Your task to perform on an android device: turn on javascript in the chrome app Image 0: 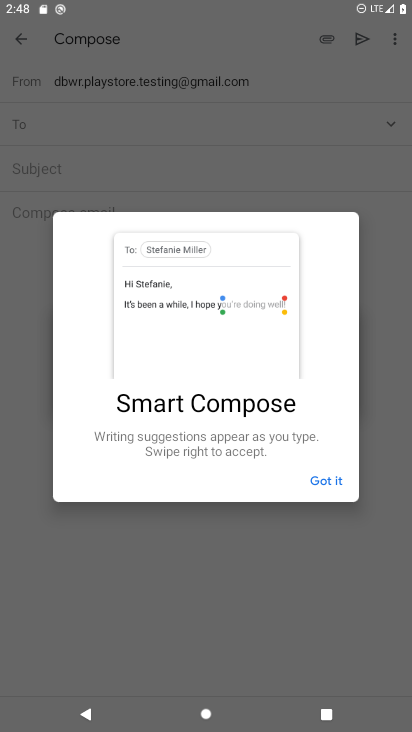
Step 0: press home button
Your task to perform on an android device: turn on javascript in the chrome app Image 1: 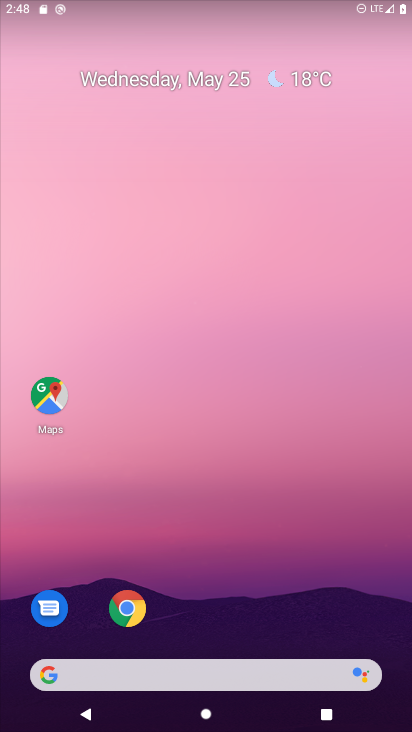
Step 1: click (124, 609)
Your task to perform on an android device: turn on javascript in the chrome app Image 2: 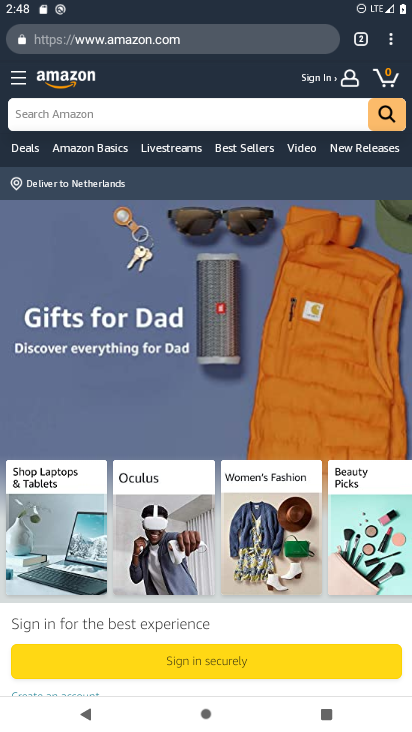
Step 2: click (390, 44)
Your task to perform on an android device: turn on javascript in the chrome app Image 3: 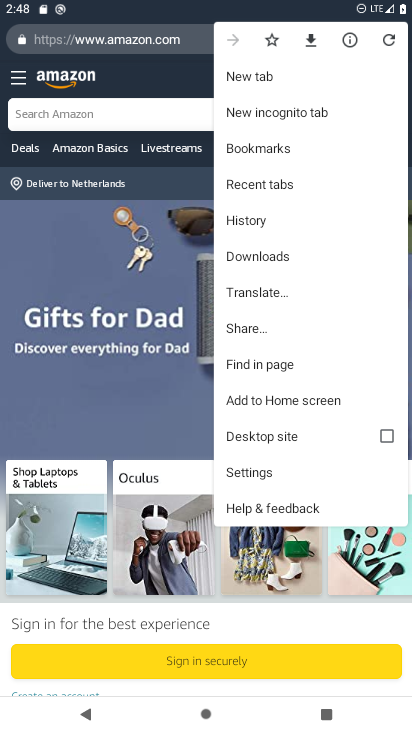
Step 3: click (263, 470)
Your task to perform on an android device: turn on javascript in the chrome app Image 4: 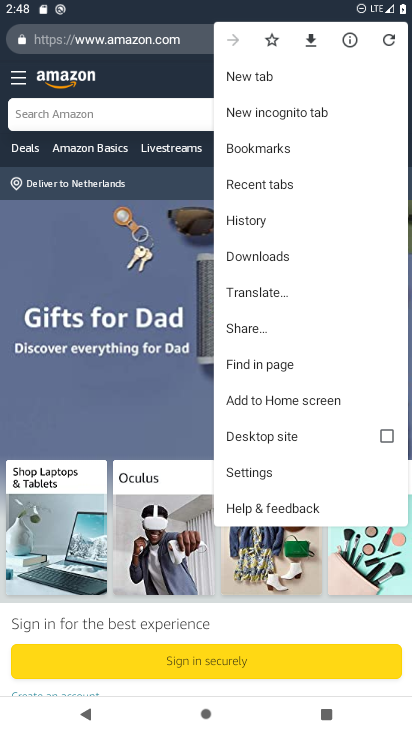
Step 4: click (263, 470)
Your task to perform on an android device: turn on javascript in the chrome app Image 5: 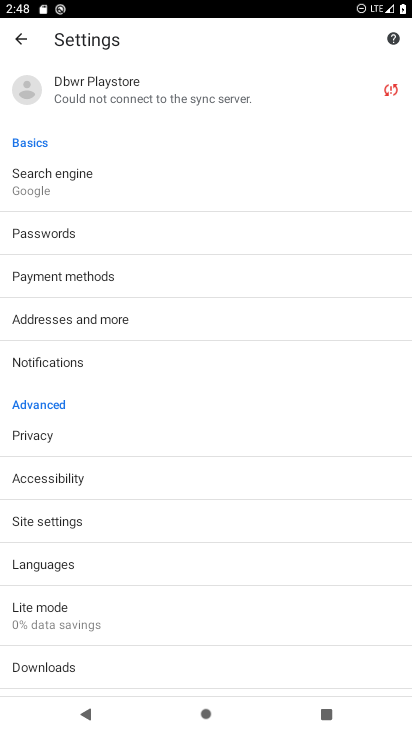
Step 5: click (57, 523)
Your task to perform on an android device: turn on javascript in the chrome app Image 6: 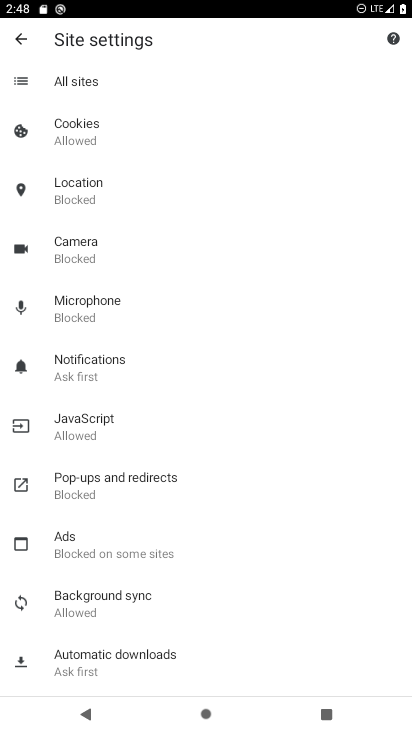
Step 6: click (81, 423)
Your task to perform on an android device: turn on javascript in the chrome app Image 7: 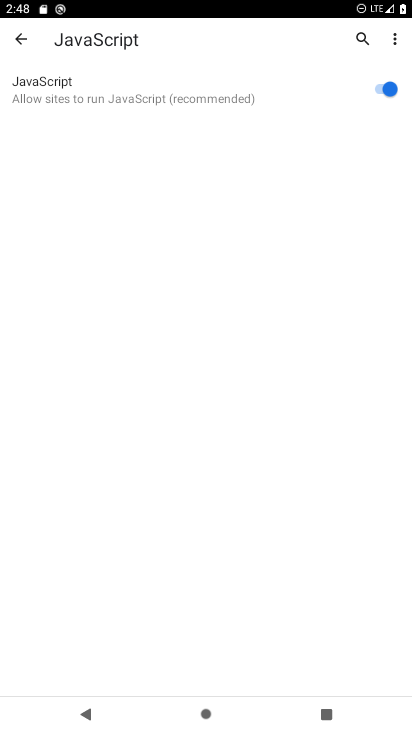
Step 7: task complete